Your task to perform on an android device: show emergency info Image 0: 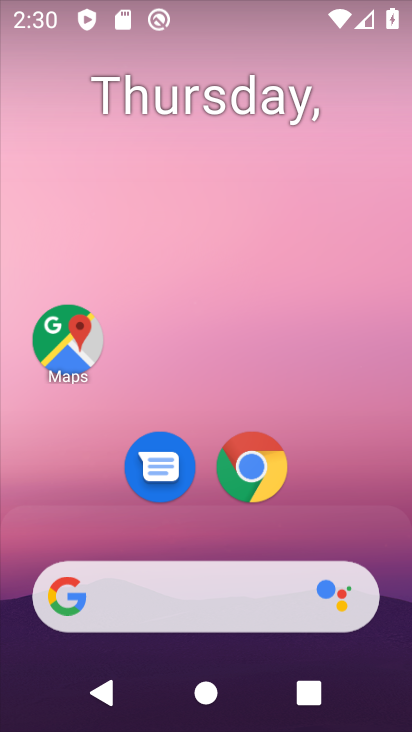
Step 0: drag from (179, 591) to (225, 63)
Your task to perform on an android device: show emergency info Image 1: 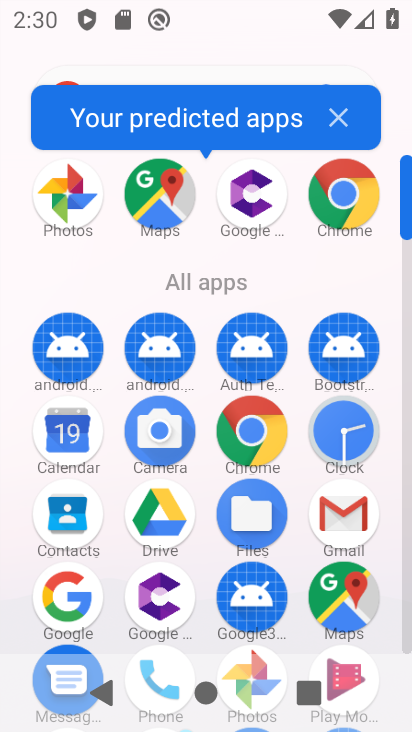
Step 1: drag from (206, 568) to (207, 176)
Your task to perform on an android device: show emergency info Image 2: 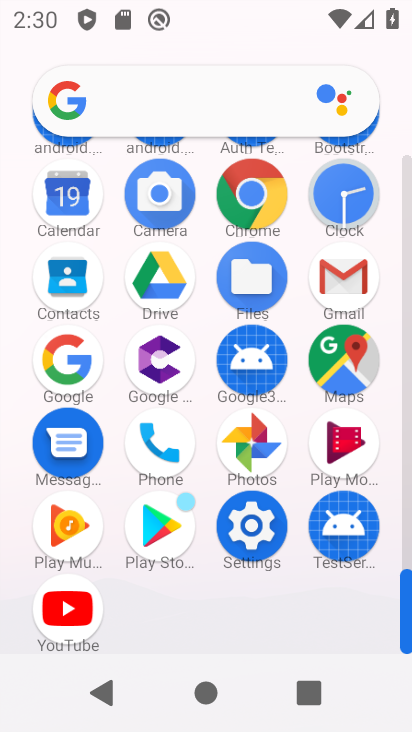
Step 2: click (261, 548)
Your task to perform on an android device: show emergency info Image 3: 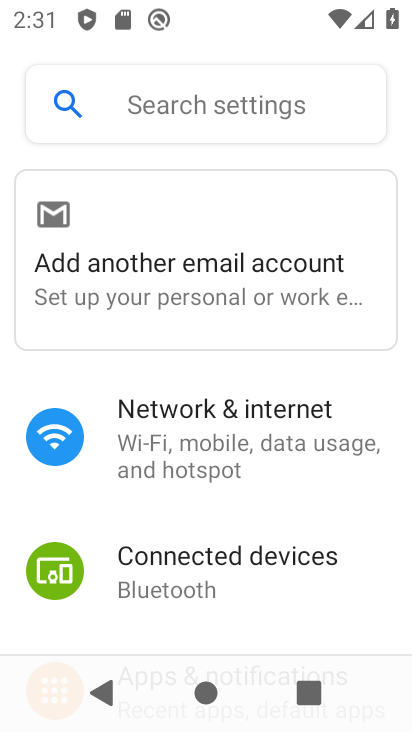
Step 3: drag from (210, 562) to (216, 44)
Your task to perform on an android device: show emergency info Image 4: 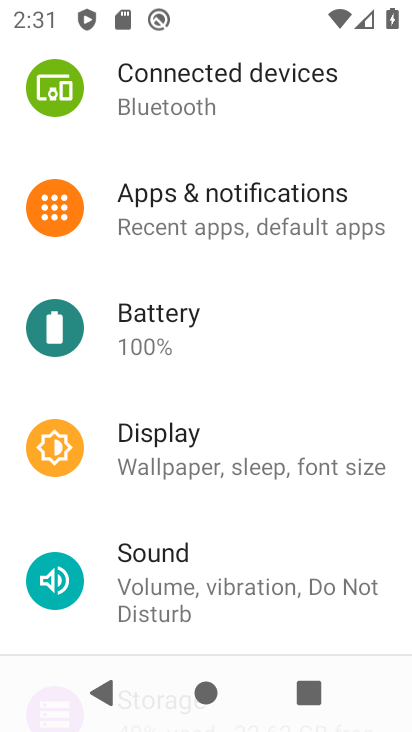
Step 4: drag from (245, 596) to (234, 143)
Your task to perform on an android device: show emergency info Image 5: 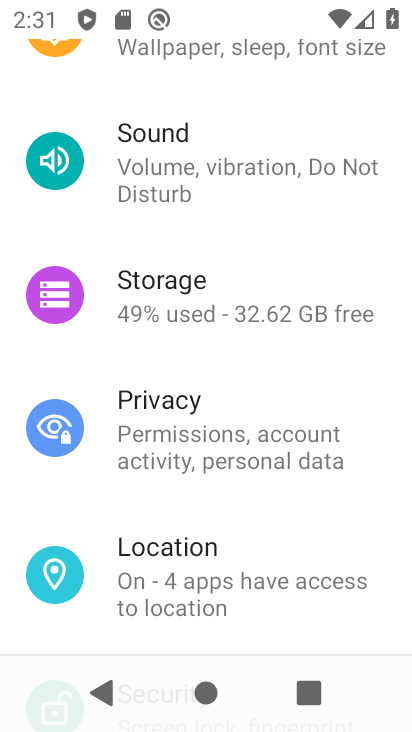
Step 5: drag from (255, 591) to (230, 133)
Your task to perform on an android device: show emergency info Image 6: 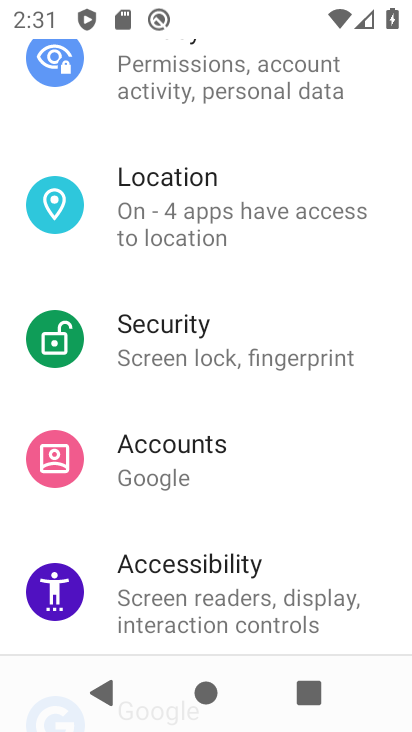
Step 6: drag from (224, 586) to (223, 184)
Your task to perform on an android device: show emergency info Image 7: 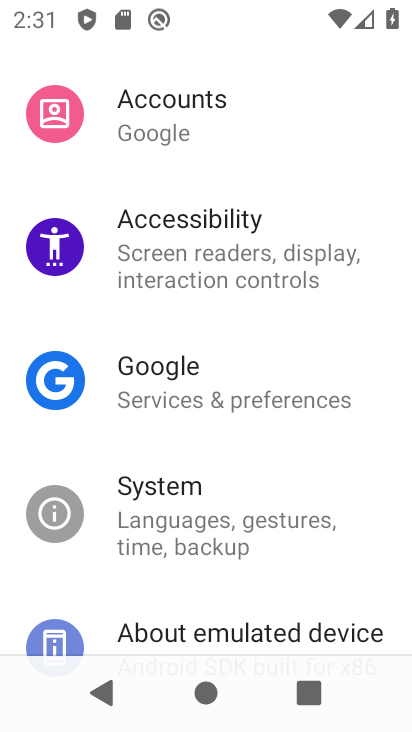
Step 7: click (232, 645)
Your task to perform on an android device: show emergency info Image 8: 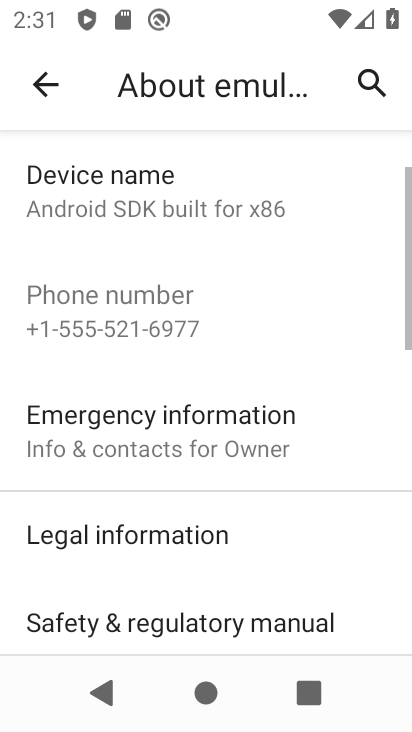
Step 8: click (111, 445)
Your task to perform on an android device: show emergency info Image 9: 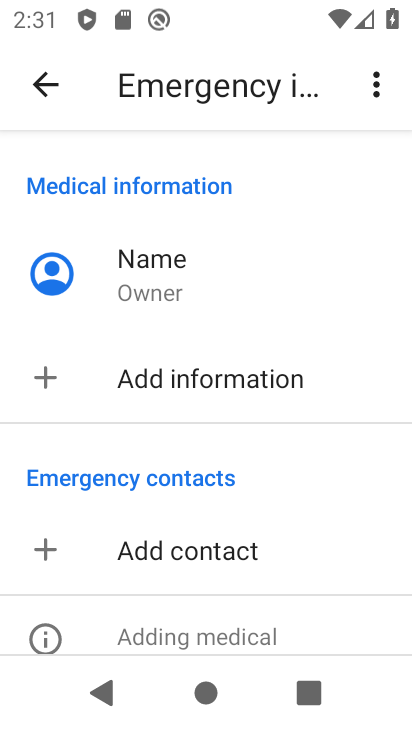
Step 9: task complete